Your task to perform on an android device: visit the assistant section in the google photos Image 0: 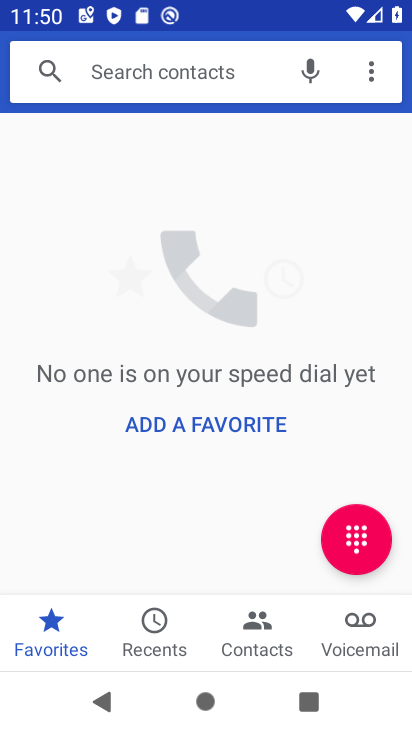
Step 0: press home button
Your task to perform on an android device: visit the assistant section in the google photos Image 1: 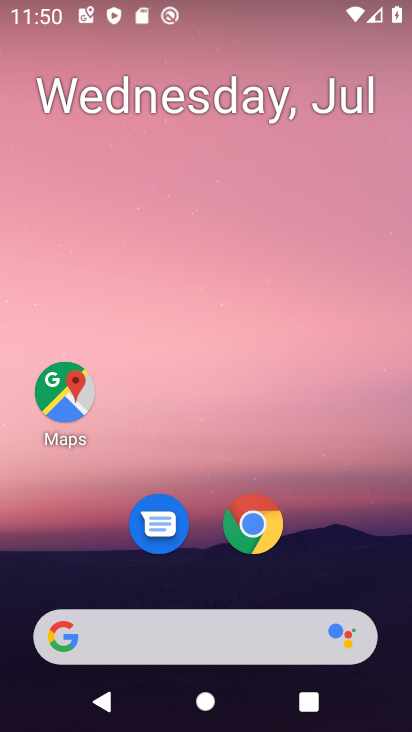
Step 1: drag from (176, 638) to (197, 256)
Your task to perform on an android device: visit the assistant section in the google photos Image 2: 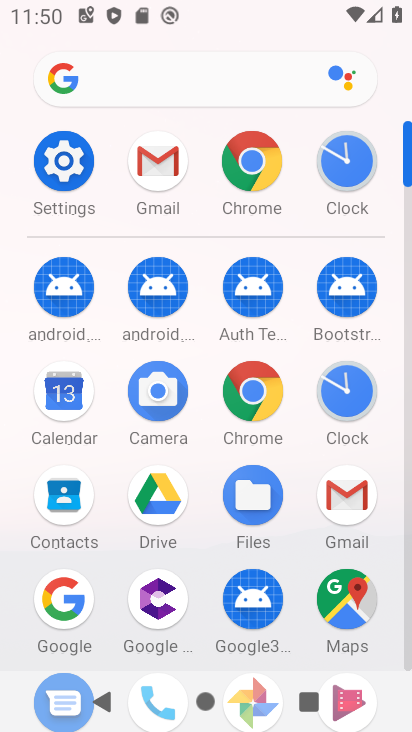
Step 2: drag from (217, 581) to (338, 256)
Your task to perform on an android device: visit the assistant section in the google photos Image 3: 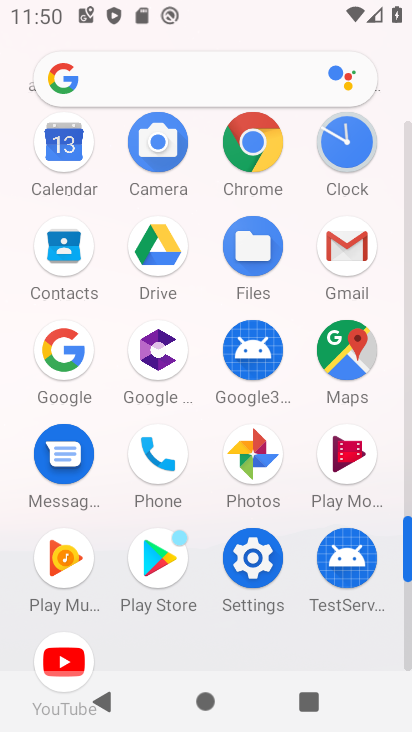
Step 3: click (256, 462)
Your task to perform on an android device: visit the assistant section in the google photos Image 4: 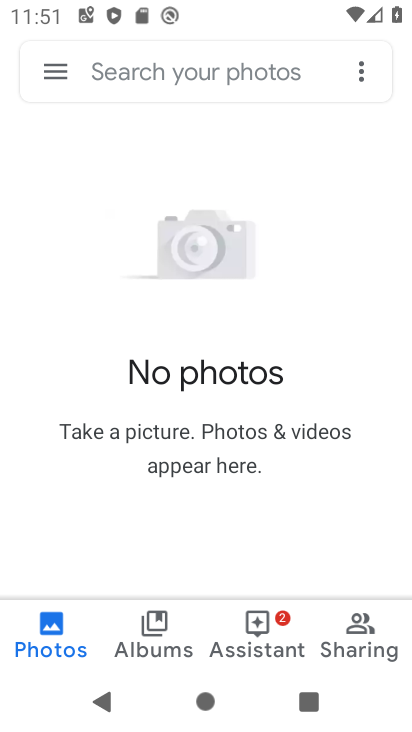
Step 4: click (245, 649)
Your task to perform on an android device: visit the assistant section in the google photos Image 5: 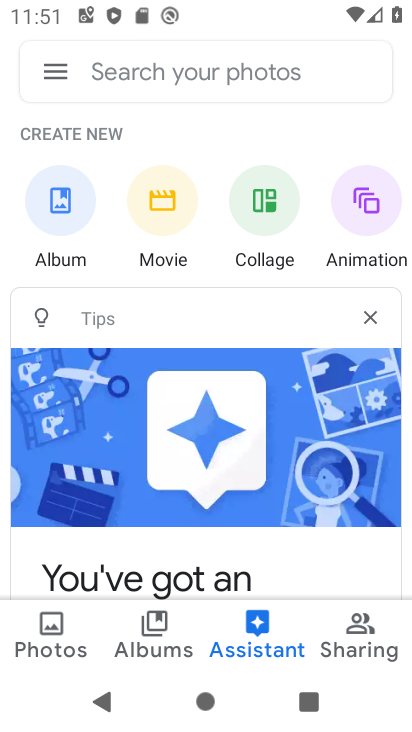
Step 5: task complete